Your task to perform on an android device: Go to internet settings Image 0: 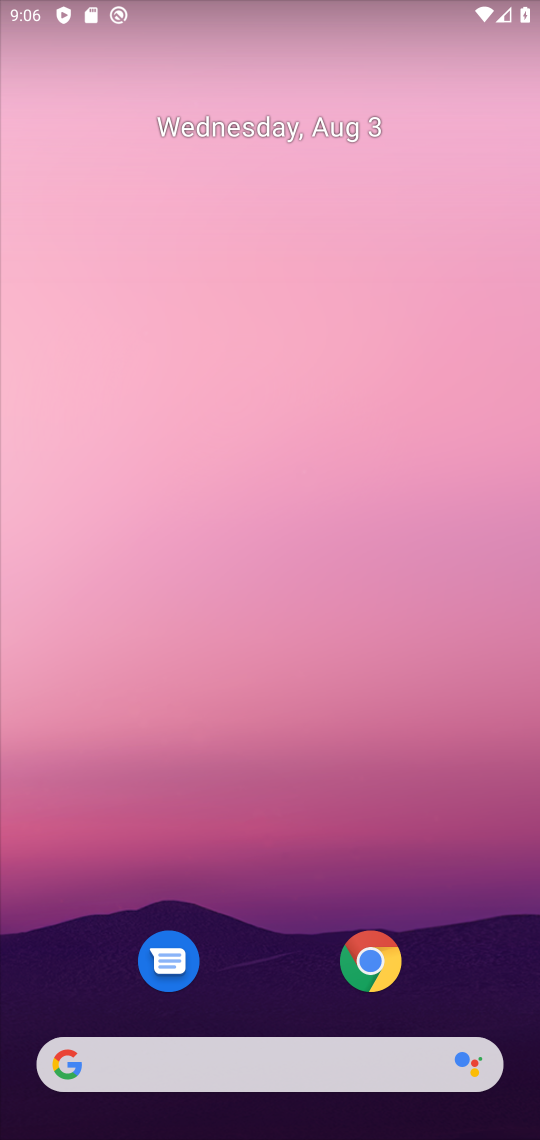
Step 0: drag from (343, 1029) to (199, 91)
Your task to perform on an android device: Go to internet settings Image 1: 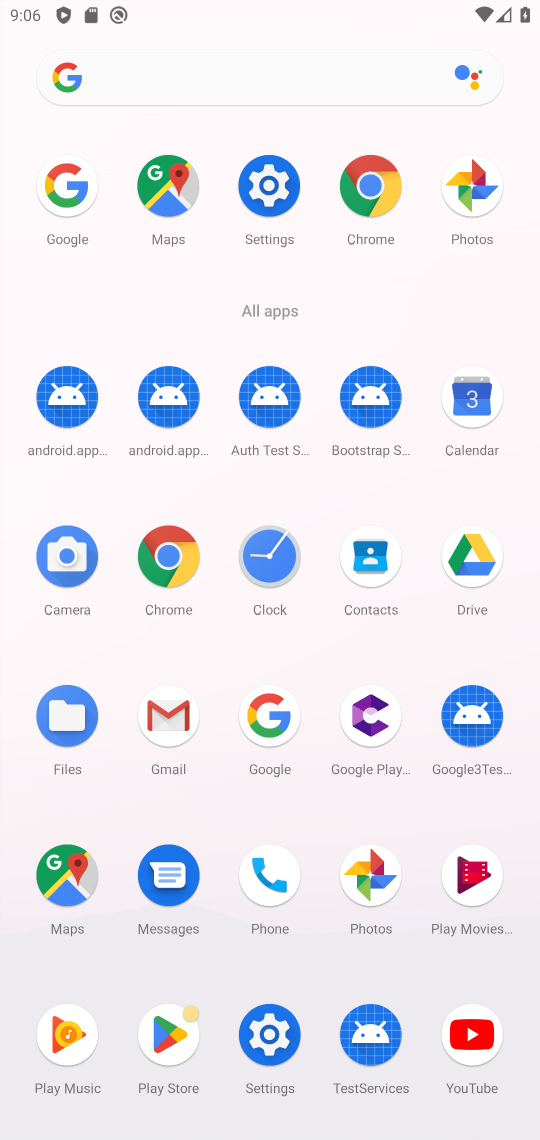
Step 1: click (253, 1041)
Your task to perform on an android device: Go to internet settings Image 2: 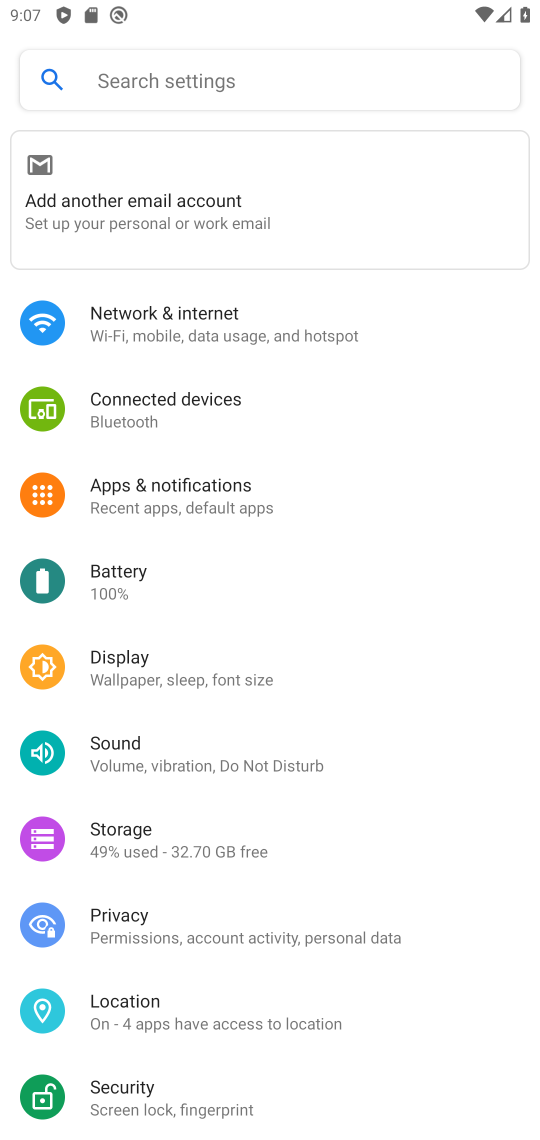
Step 2: click (139, 335)
Your task to perform on an android device: Go to internet settings Image 3: 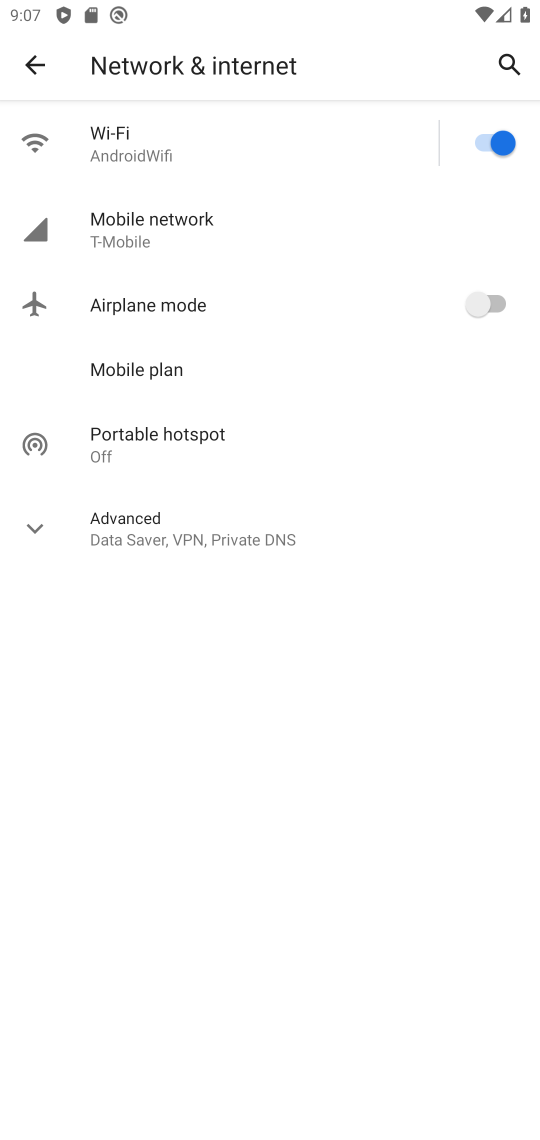
Step 3: click (149, 218)
Your task to perform on an android device: Go to internet settings Image 4: 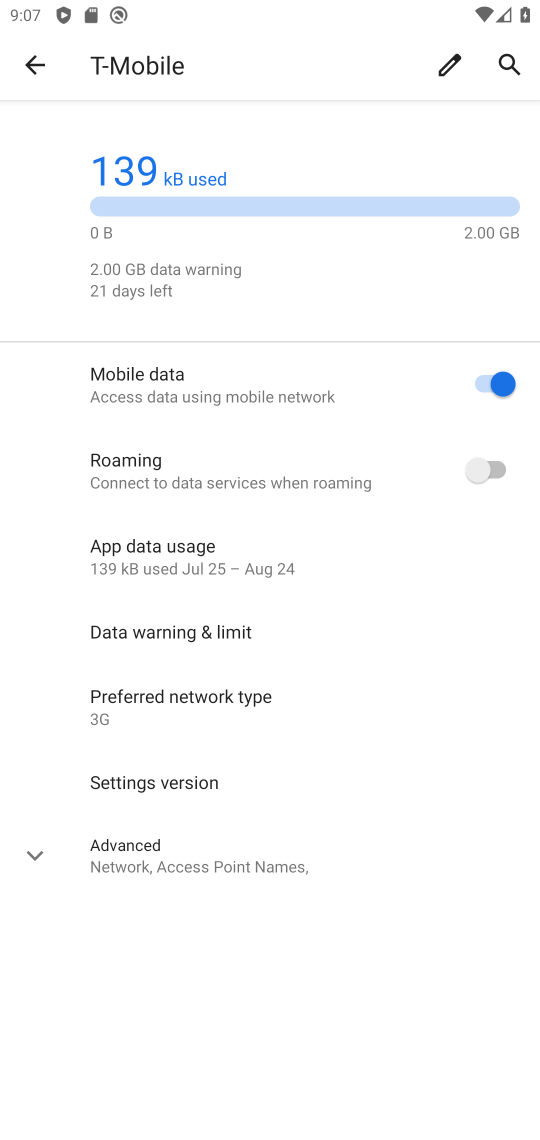
Step 4: task complete